Your task to perform on an android device: move a message to another label in the gmail app Image 0: 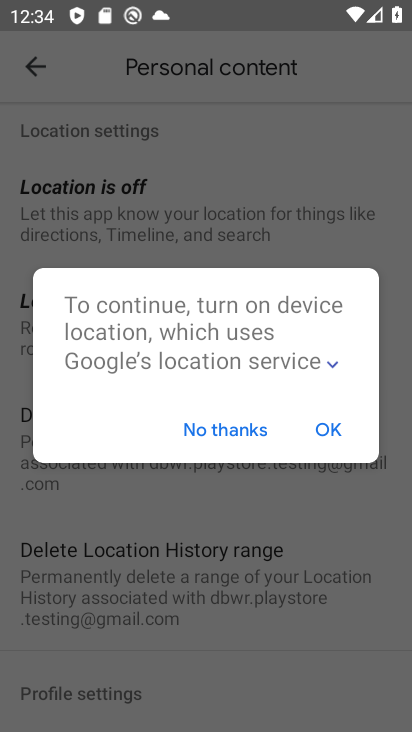
Step 0: press home button
Your task to perform on an android device: move a message to another label in the gmail app Image 1: 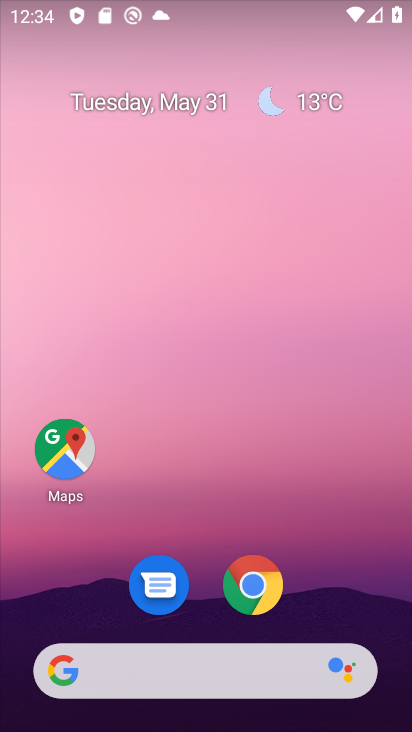
Step 1: drag from (217, 536) to (274, 27)
Your task to perform on an android device: move a message to another label in the gmail app Image 2: 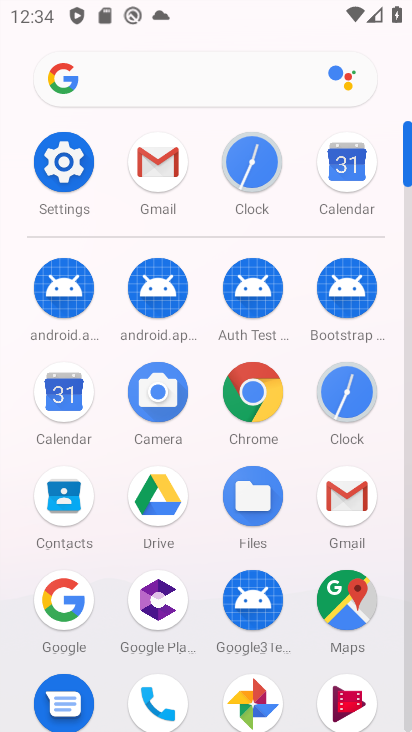
Step 2: click (161, 172)
Your task to perform on an android device: move a message to another label in the gmail app Image 3: 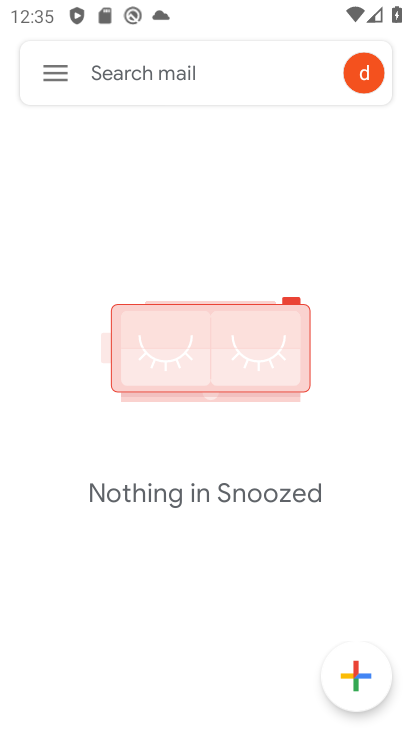
Step 3: click (57, 81)
Your task to perform on an android device: move a message to another label in the gmail app Image 4: 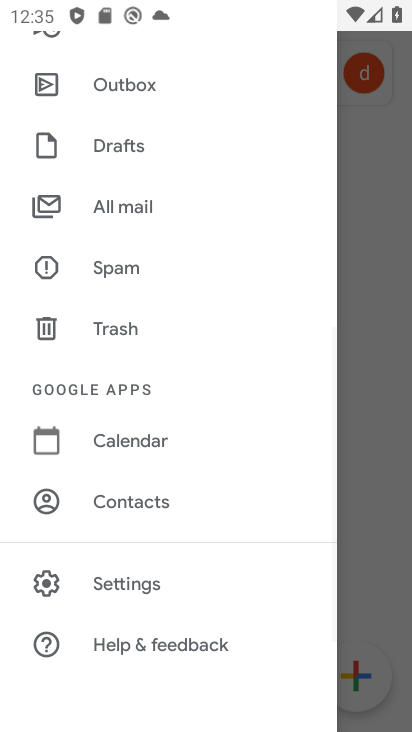
Step 4: click (116, 206)
Your task to perform on an android device: move a message to another label in the gmail app Image 5: 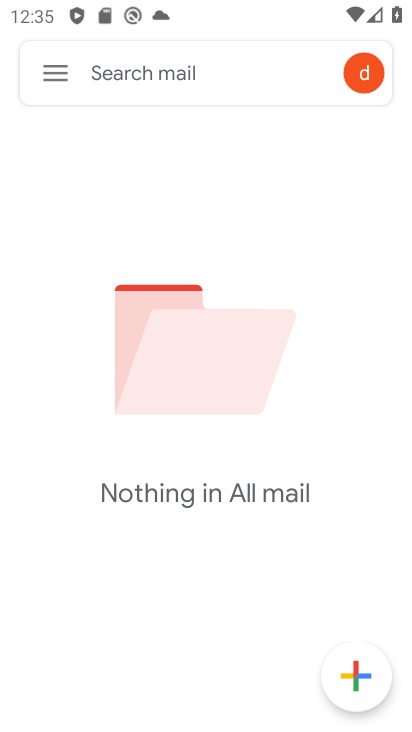
Step 5: task complete